Your task to perform on an android device: Open privacy settings Image 0: 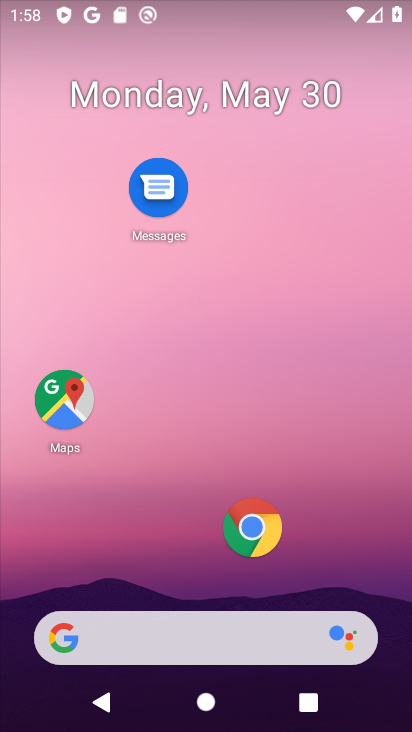
Step 0: drag from (198, 579) to (250, 100)
Your task to perform on an android device: Open privacy settings Image 1: 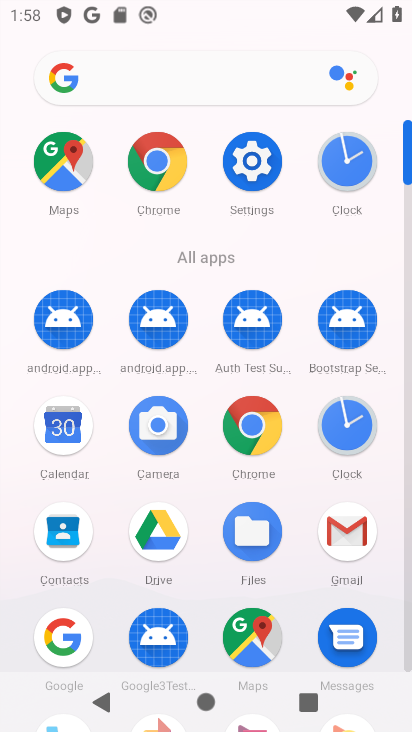
Step 1: drag from (205, 264) to (208, 57)
Your task to perform on an android device: Open privacy settings Image 2: 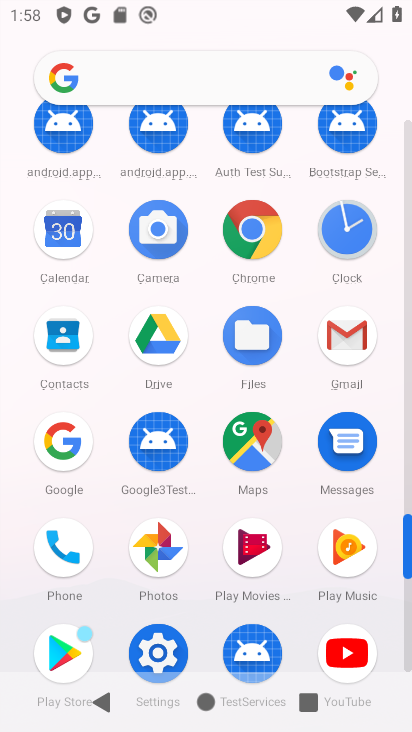
Step 2: click (167, 632)
Your task to perform on an android device: Open privacy settings Image 3: 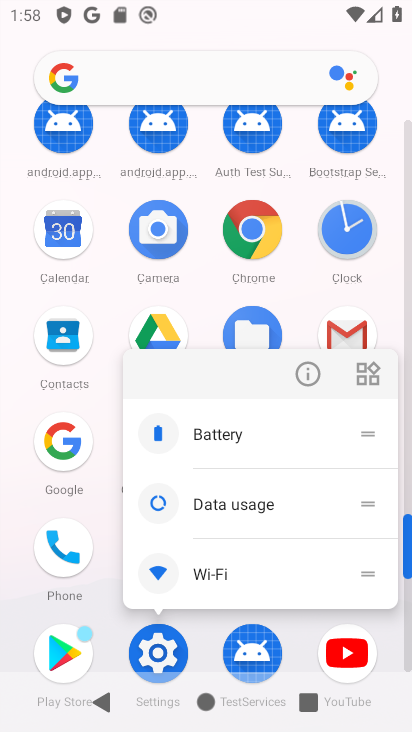
Step 3: click (162, 655)
Your task to perform on an android device: Open privacy settings Image 4: 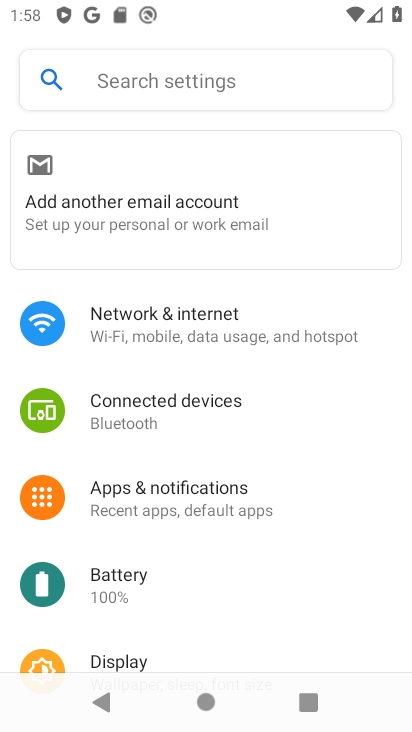
Step 4: drag from (191, 566) to (214, 310)
Your task to perform on an android device: Open privacy settings Image 5: 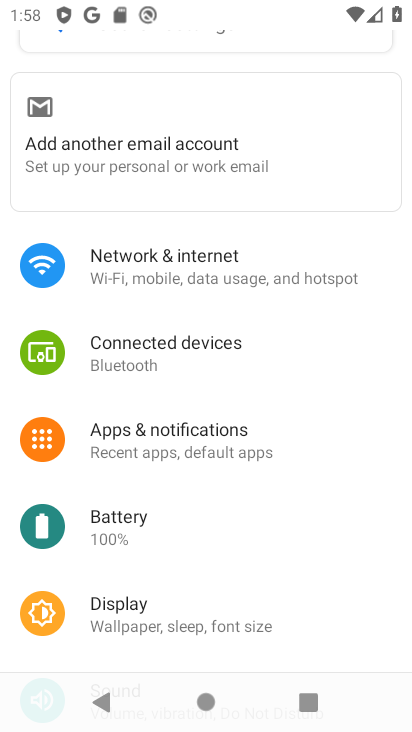
Step 5: drag from (188, 247) to (219, 63)
Your task to perform on an android device: Open privacy settings Image 6: 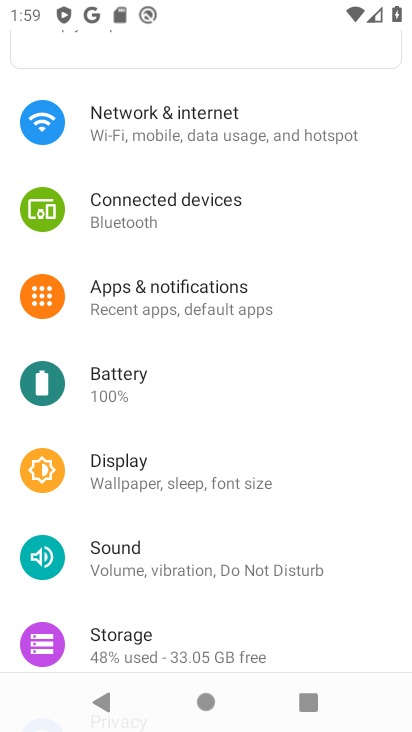
Step 6: drag from (292, 593) to (277, 175)
Your task to perform on an android device: Open privacy settings Image 7: 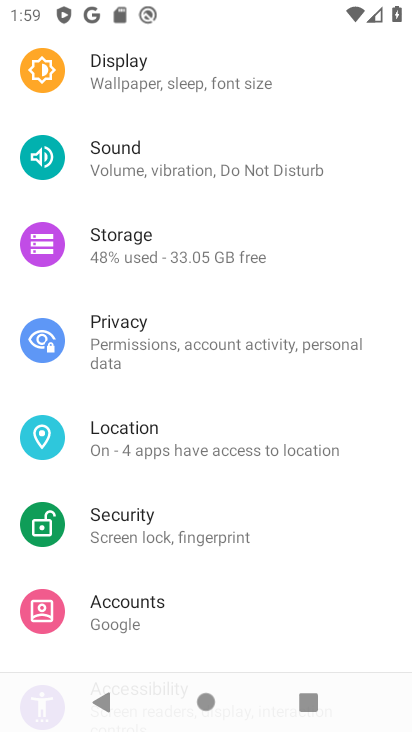
Step 7: drag from (135, 577) to (194, 220)
Your task to perform on an android device: Open privacy settings Image 8: 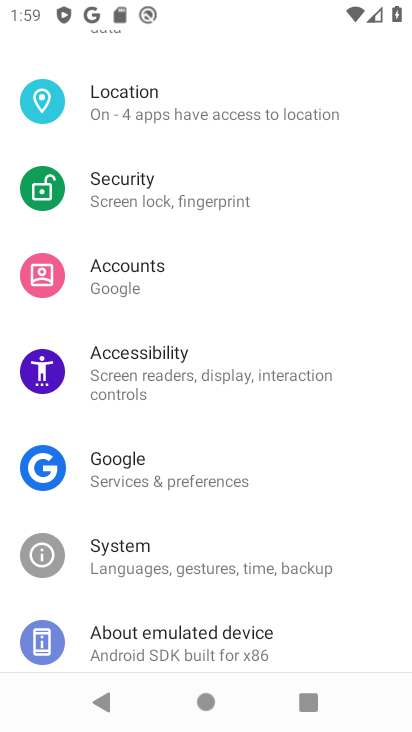
Step 8: drag from (198, 191) to (225, 483)
Your task to perform on an android device: Open privacy settings Image 9: 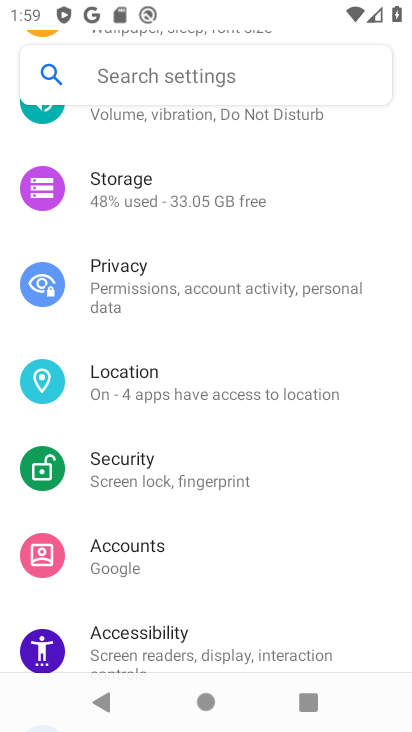
Step 9: click (199, 287)
Your task to perform on an android device: Open privacy settings Image 10: 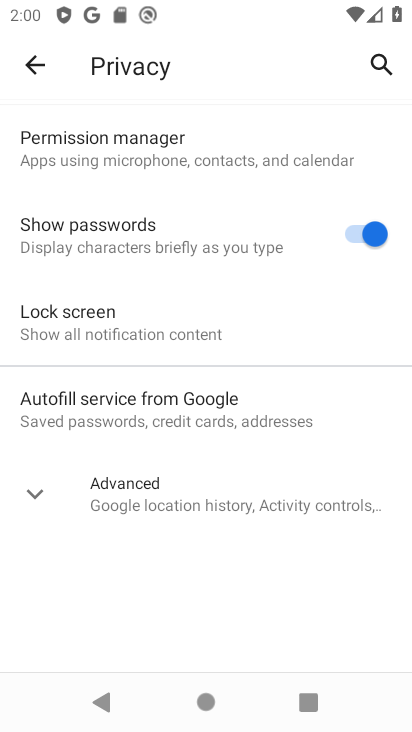
Step 10: task complete